Your task to perform on an android device: search for starred emails in the gmail app Image 0: 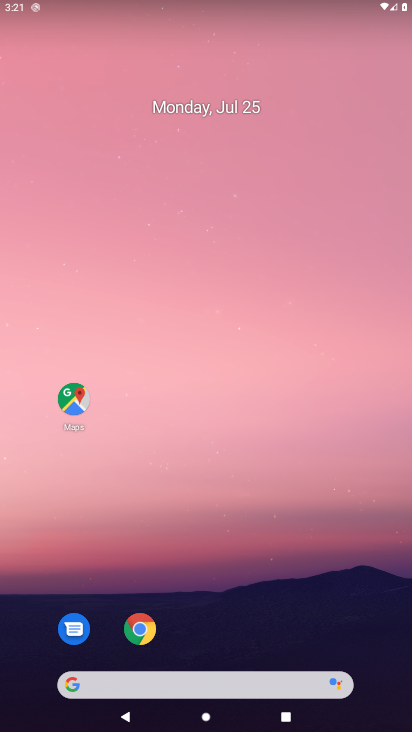
Step 0: drag from (23, 681) to (202, 80)
Your task to perform on an android device: search for starred emails in the gmail app Image 1: 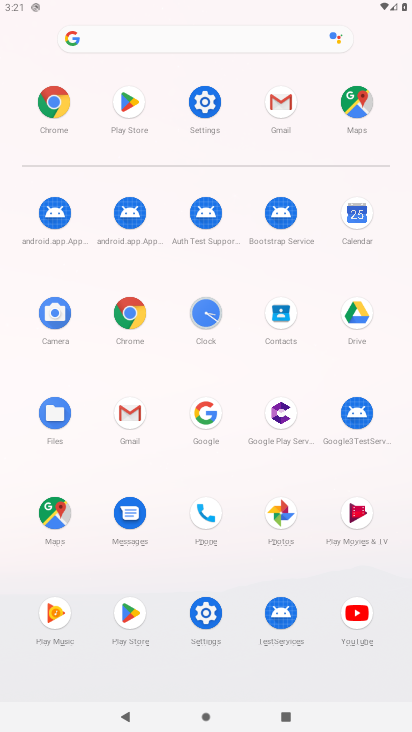
Step 1: click (132, 421)
Your task to perform on an android device: search for starred emails in the gmail app Image 2: 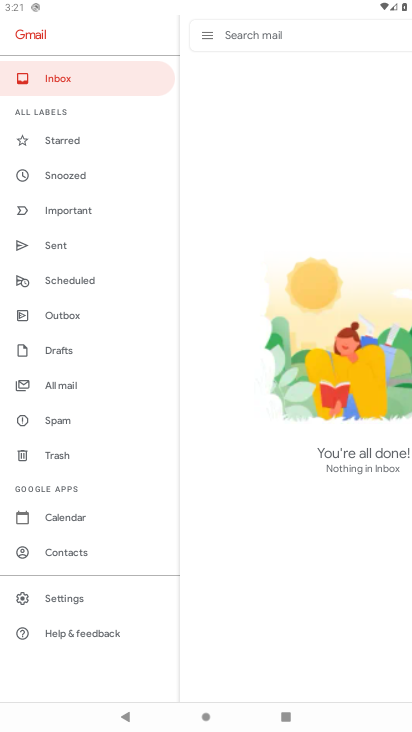
Step 2: click (61, 144)
Your task to perform on an android device: search for starred emails in the gmail app Image 3: 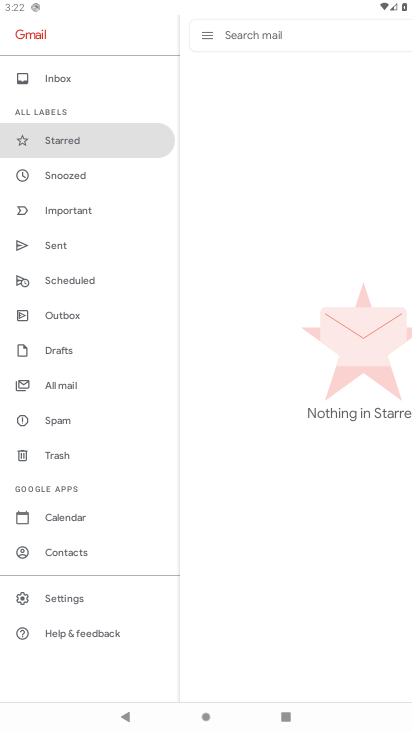
Step 3: task complete